Your task to perform on an android device: remove spam from my inbox in the gmail app Image 0: 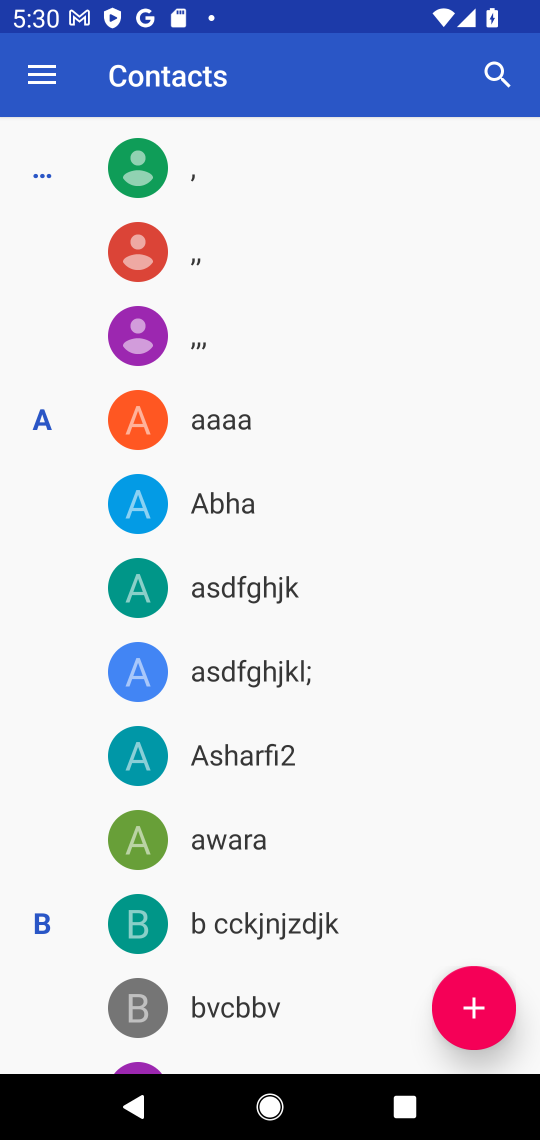
Step 0: press home button
Your task to perform on an android device: remove spam from my inbox in the gmail app Image 1: 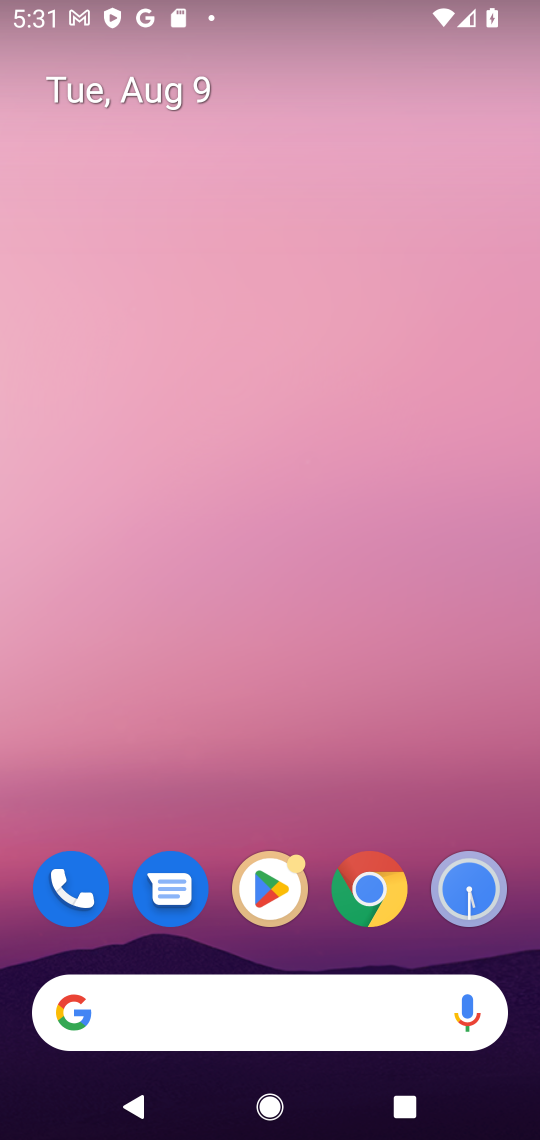
Step 1: drag from (260, 975) to (278, 435)
Your task to perform on an android device: remove spam from my inbox in the gmail app Image 2: 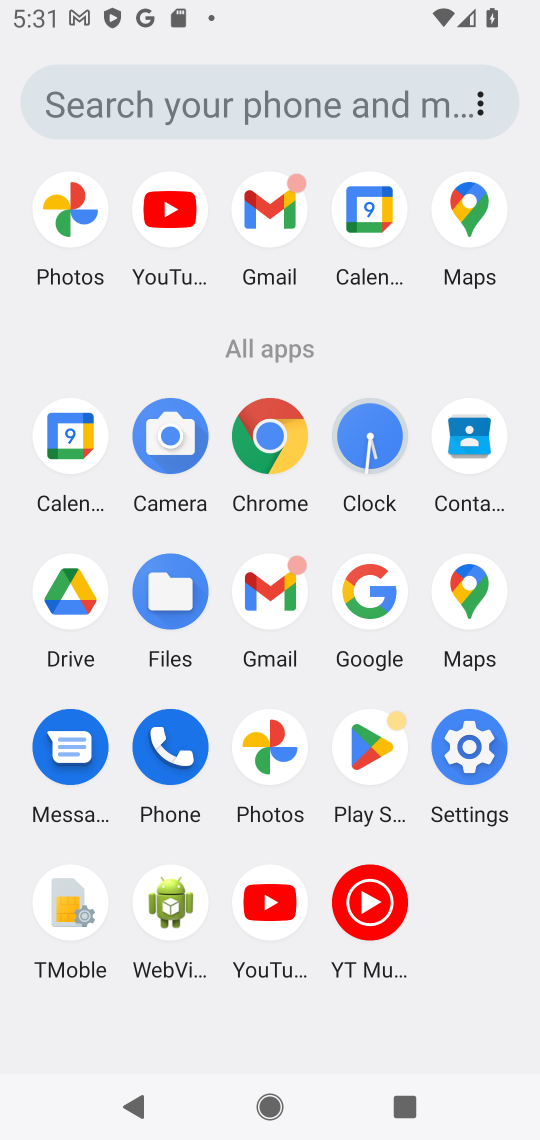
Step 2: click (263, 578)
Your task to perform on an android device: remove spam from my inbox in the gmail app Image 3: 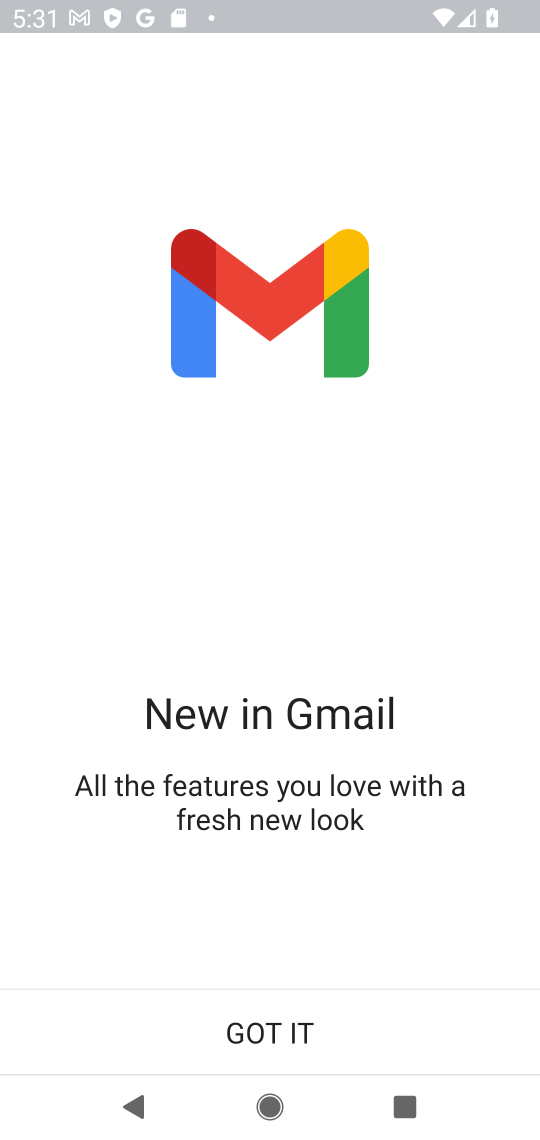
Step 3: click (298, 1056)
Your task to perform on an android device: remove spam from my inbox in the gmail app Image 4: 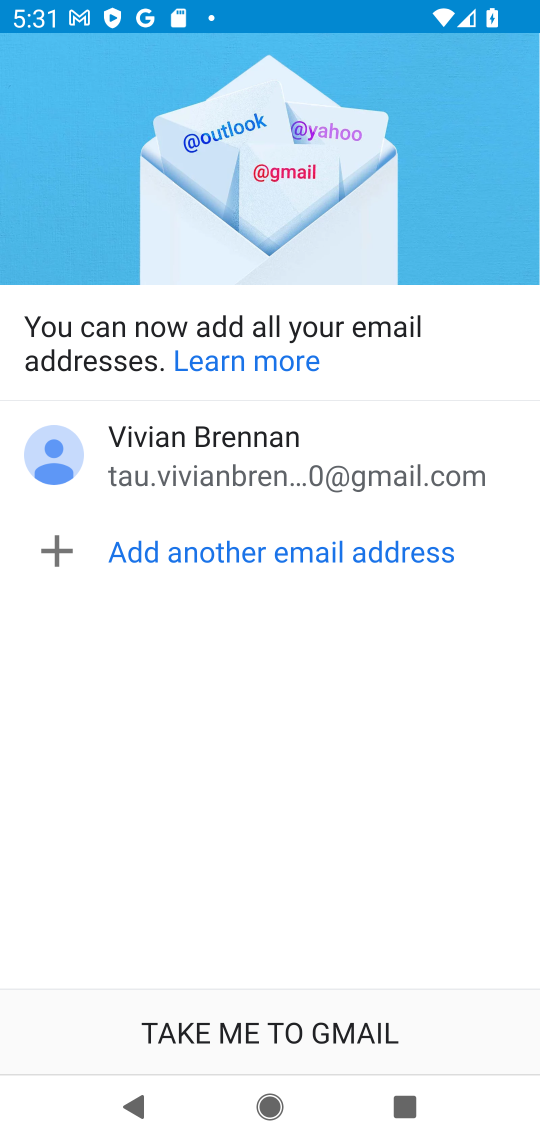
Step 4: click (286, 1044)
Your task to perform on an android device: remove spam from my inbox in the gmail app Image 5: 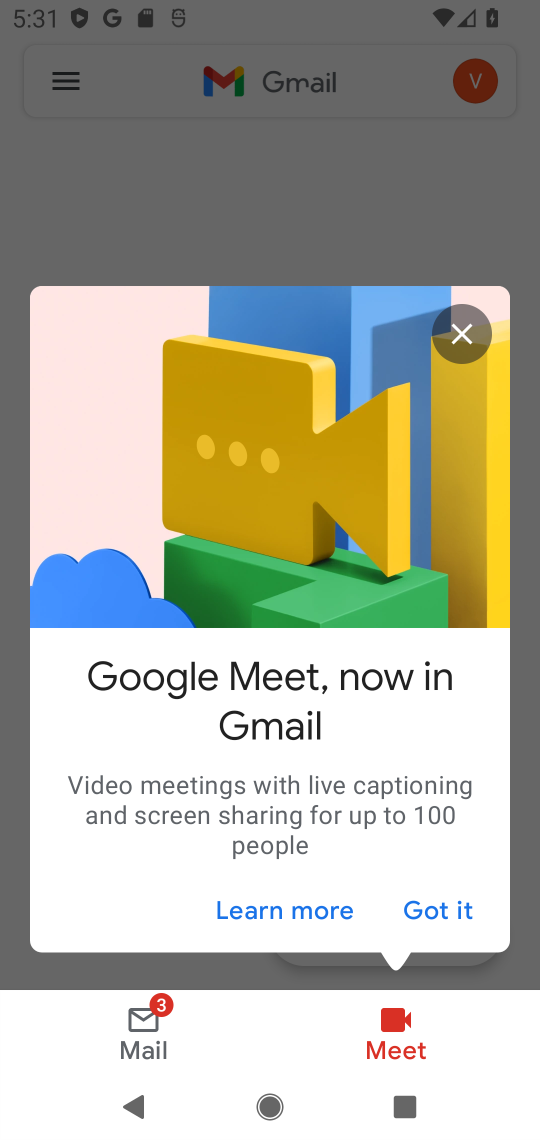
Step 5: click (417, 907)
Your task to perform on an android device: remove spam from my inbox in the gmail app Image 6: 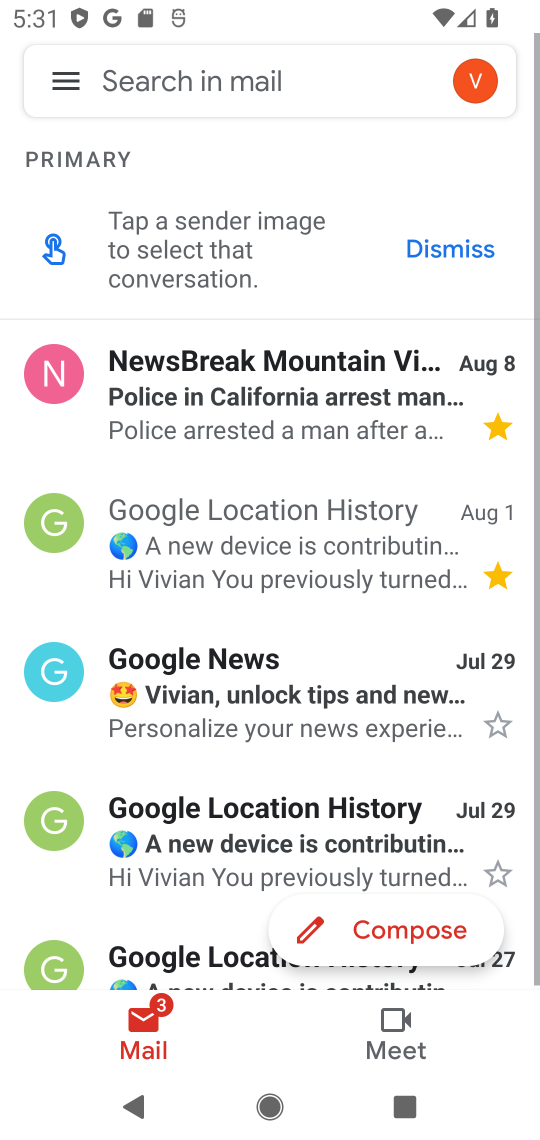
Step 6: click (64, 81)
Your task to perform on an android device: remove spam from my inbox in the gmail app Image 7: 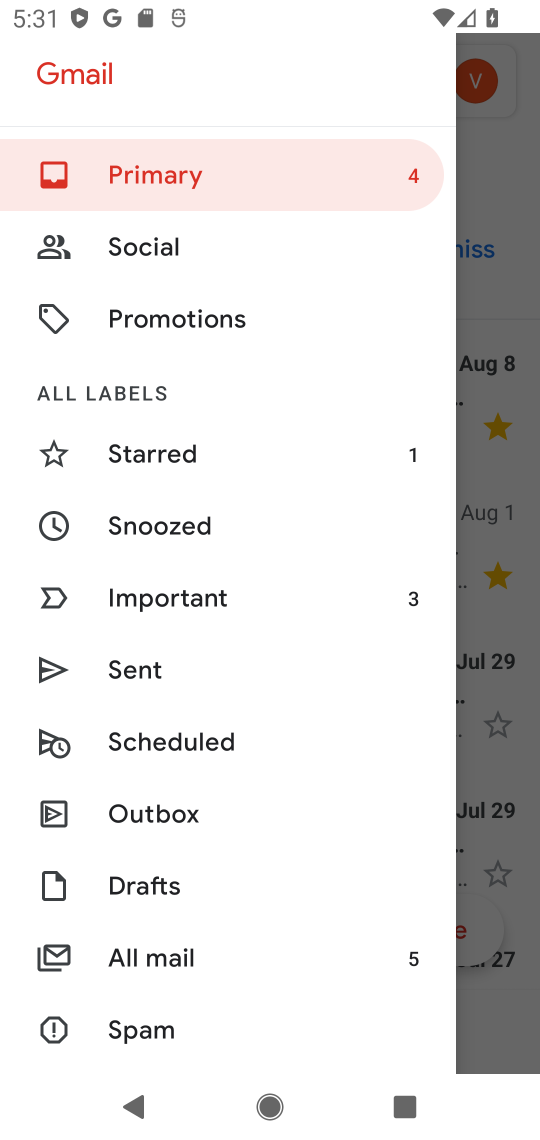
Step 7: click (137, 1010)
Your task to perform on an android device: remove spam from my inbox in the gmail app Image 8: 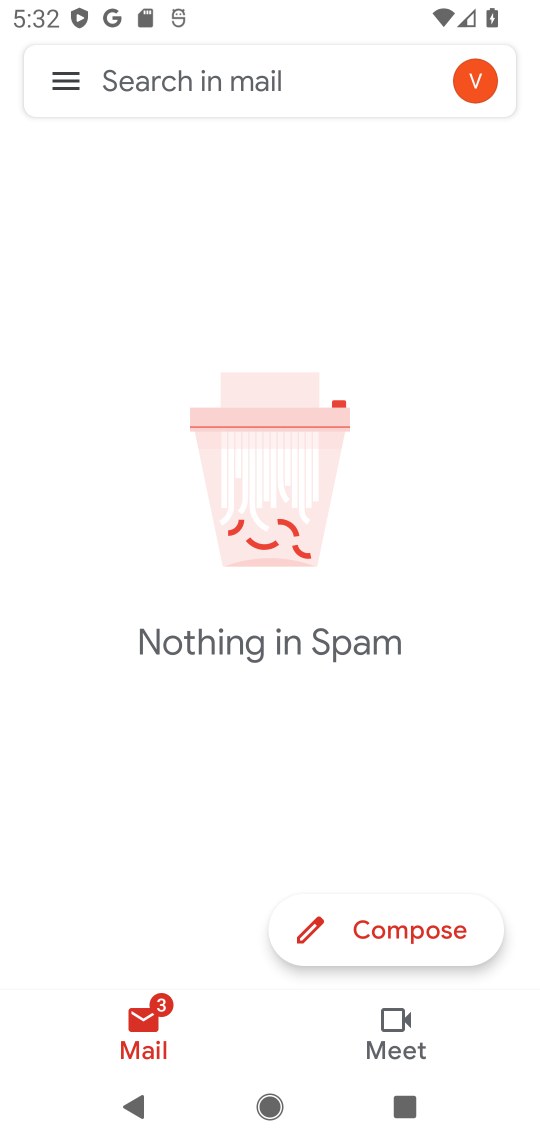
Step 8: task complete